Your task to perform on an android device: turn on priority inbox in the gmail app Image 0: 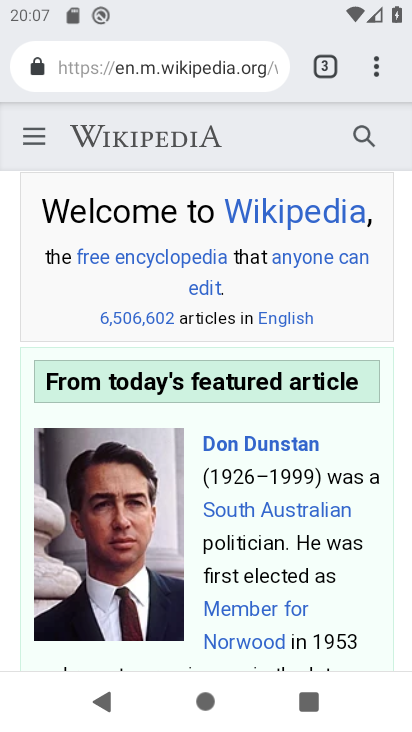
Step 0: press home button
Your task to perform on an android device: turn on priority inbox in the gmail app Image 1: 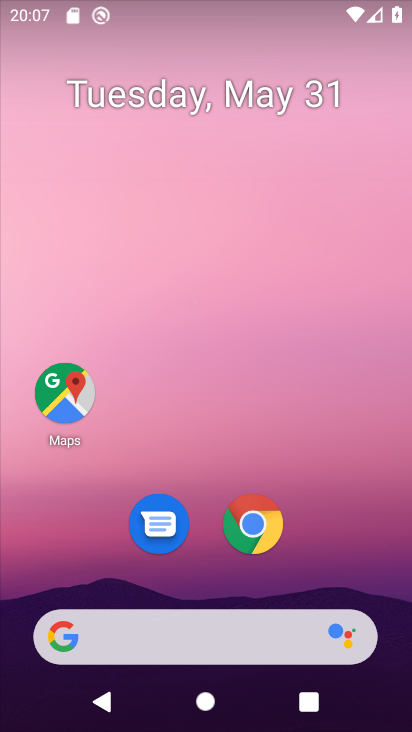
Step 1: drag from (307, 538) to (331, 7)
Your task to perform on an android device: turn on priority inbox in the gmail app Image 2: 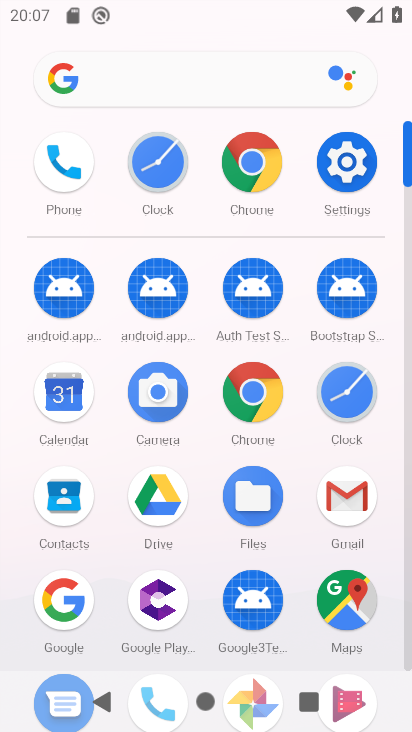
Step 2: click (330, 485)
Your task to perform on an android device: turn on priority inbox in the gmail app Image 3: 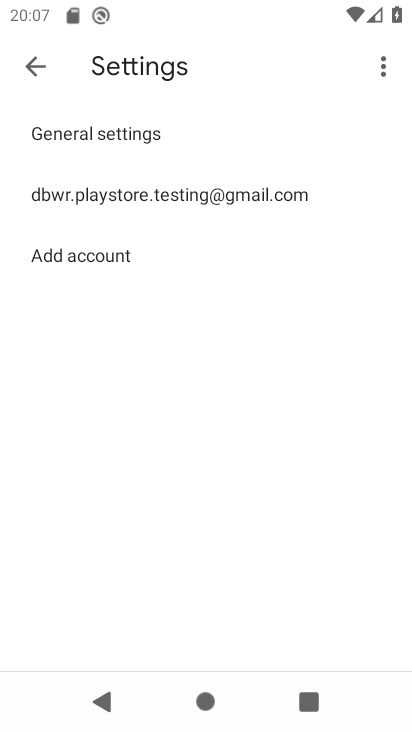
Step 3: click (178, 194)
Your task to perform on an android device: turn on priority inbox in the gmail app Image 4: 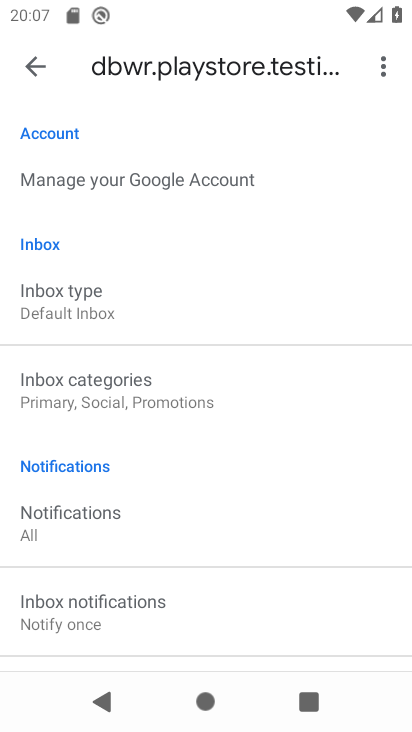
Step 4: click (83, 299)
Your task to perform on an android device: turn on priority inbox in the gmail app Image 5: 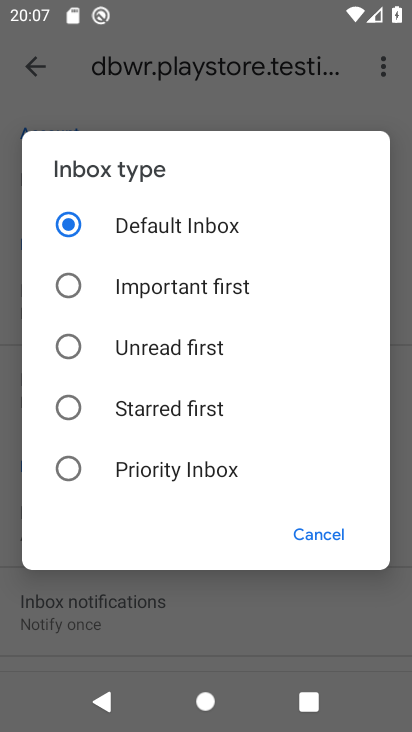
Step 5: click (79, 464)
Your task to perform on an android device: turn on priority inbox in the gmail app Image 6: 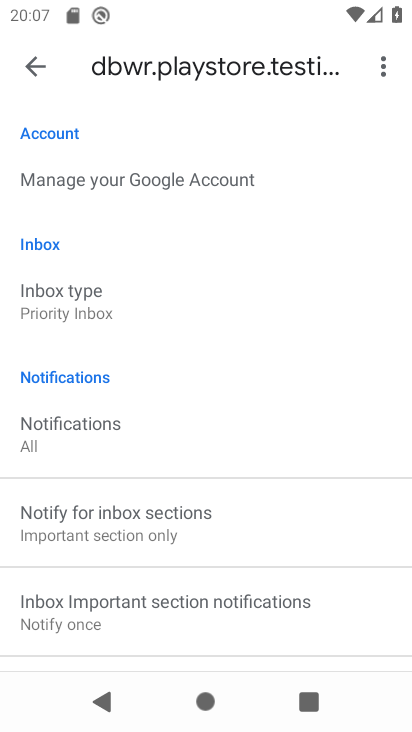
Step 6: task complete